Your task to perform on an android device: turn on javascript in the chrome app Image 0: 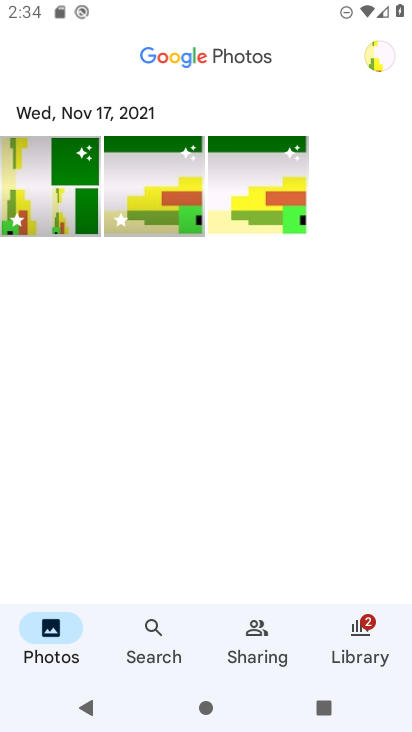
Step 0: press home button
Your task to perform on an android device: turn on javascript in the chrome app Image 1: 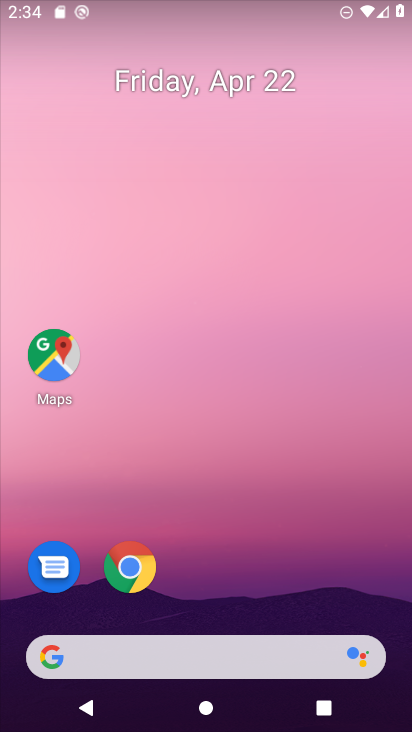
Step 1: click (152, 554)
Your task to perform on an android device: turn on javascript in the chrome app Image 2: 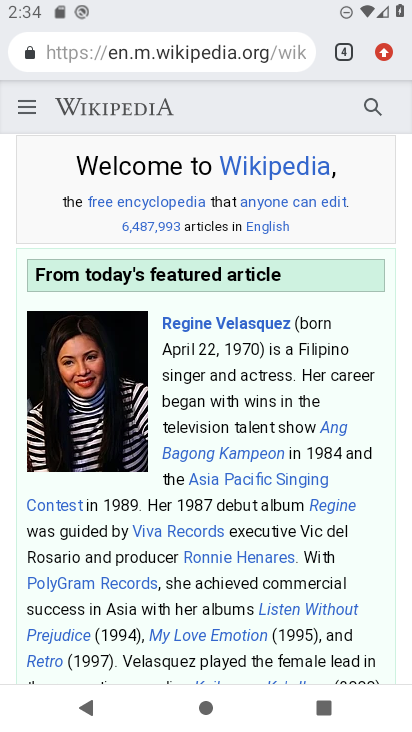
Step 2: click (378, 52)
Your task to perform on an android device: turn on javascript in the chrome app Image 3: 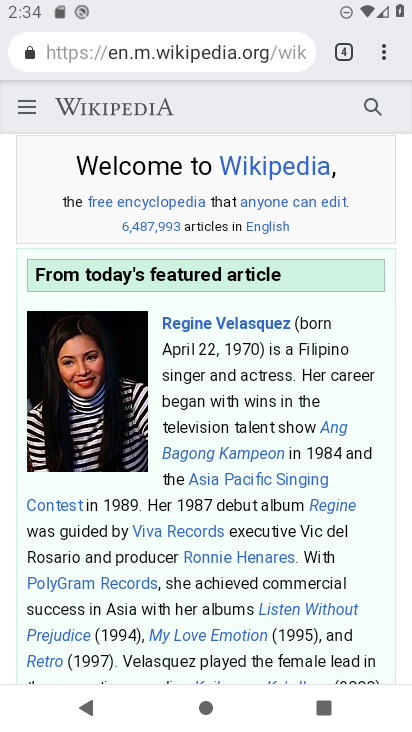
Step 3: click (382, 56)
Your task to perform on an android device: turn on javascript in the chrome app Image 4: 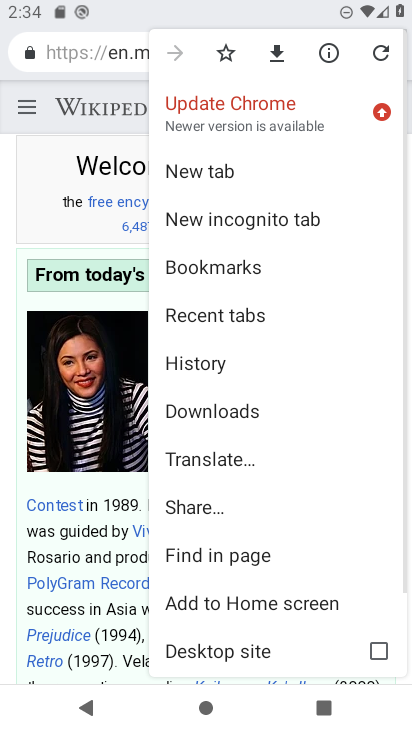
Step 4: drag from (247, 544) to (235, 210)
Your task to perform on an android device: turn on javascript in the chrome app Image 5: 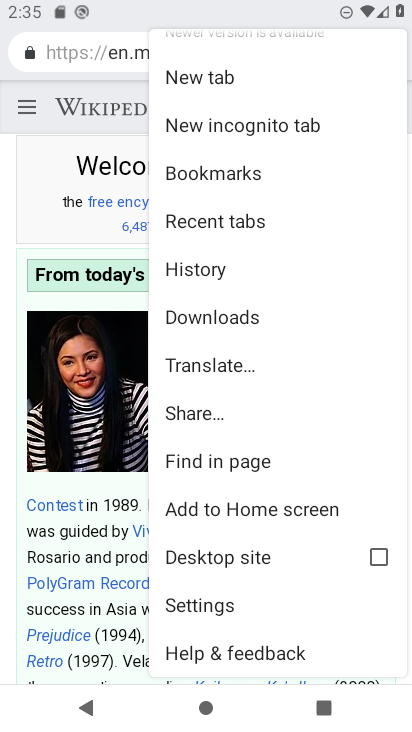
Step 5: click (243, 599)
Your task to perform on an android device: turn on javascript in the chrome app Image 6: 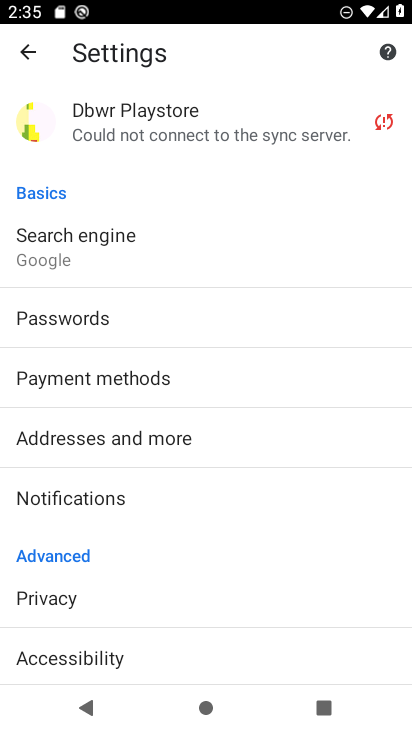
Step 6: drag from (241, 587) to (233, 157)
Your task to perform on an android device: turn on javascript in the chrome app Image 7: 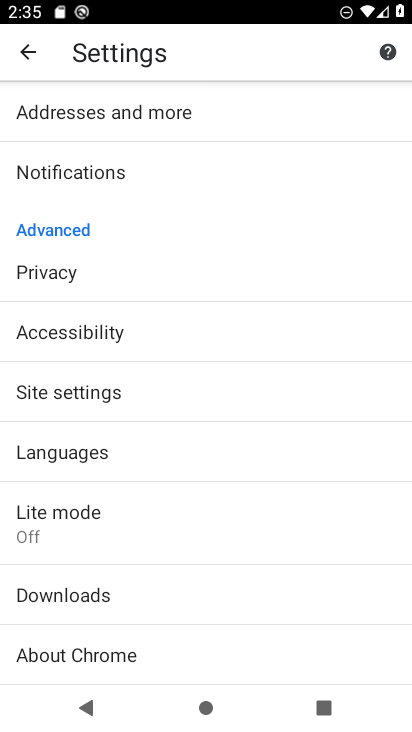
Step 7: click (157, 393)
Your task to perform on an android device: turn on javascript in the chrome app Image 8: 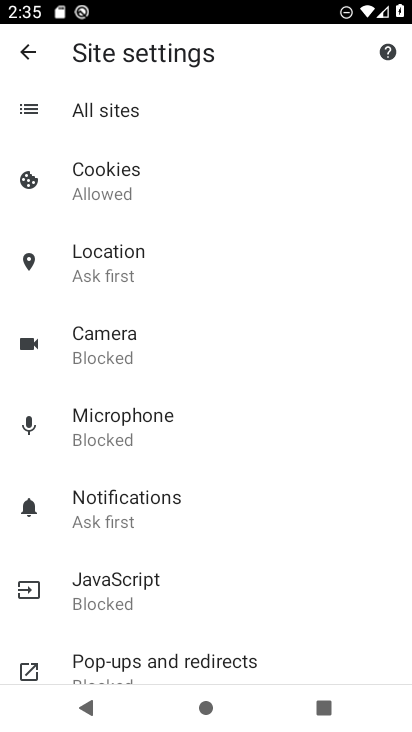
Step 8: click (190, 579)
Your task to perform on an android device: turn on javascript in the chrome app Image 9: 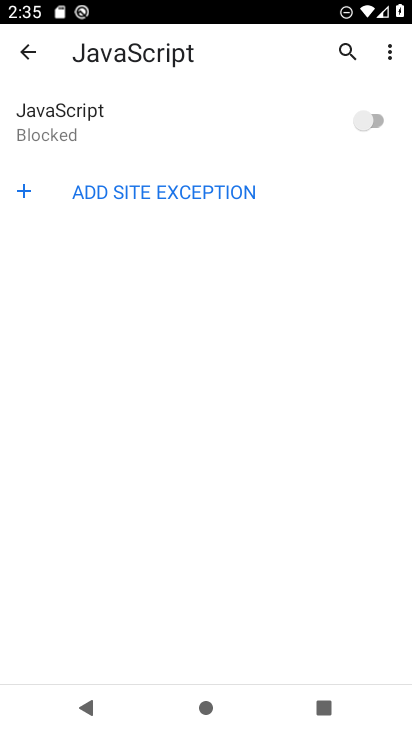
Step 9: click (378, 119)
Your task to perform on an android device: turn on javascript in the chrome app Image 10: 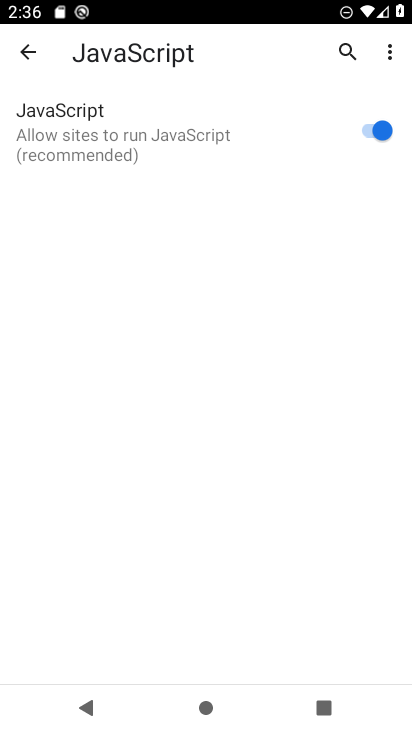
Step 10: task complete